Your task to perform on an android device: add a contact Image 0: 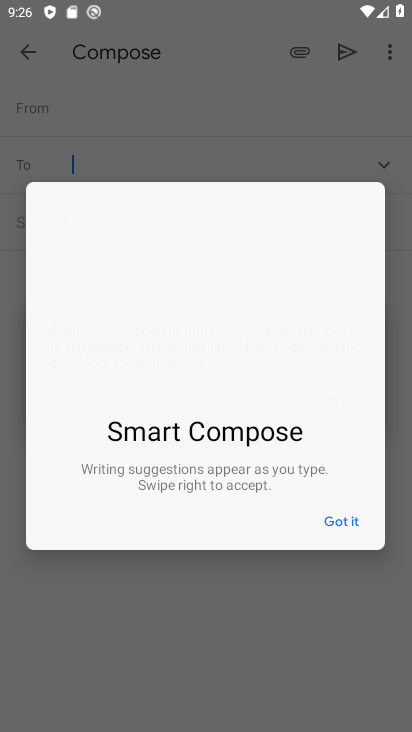
Step 0: press home button
Your task to perform on an android device: add a contact Image 1: 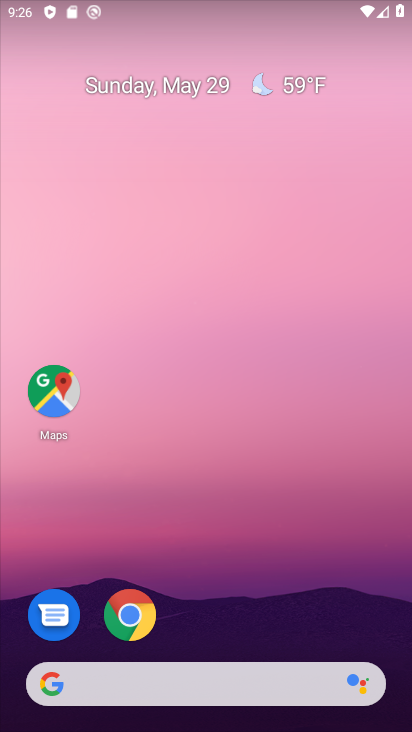
Step 1: drag from (237, 613) to (288, 77)
Your task to perform on an android device: add a contact Image 2: 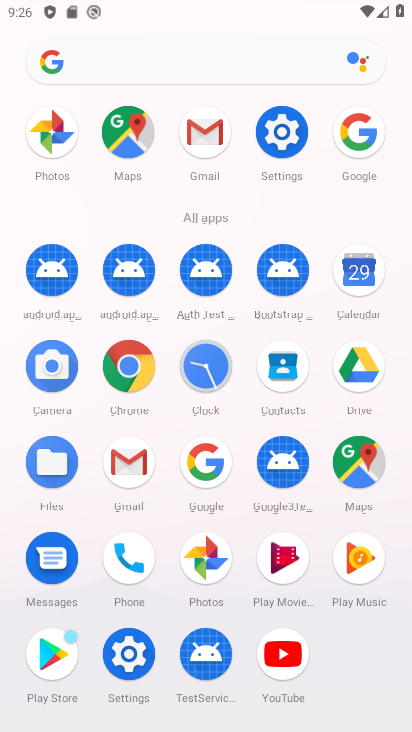
Step 2: click (289, 356)
Your task to perform on an android device: add a contact Image 3: 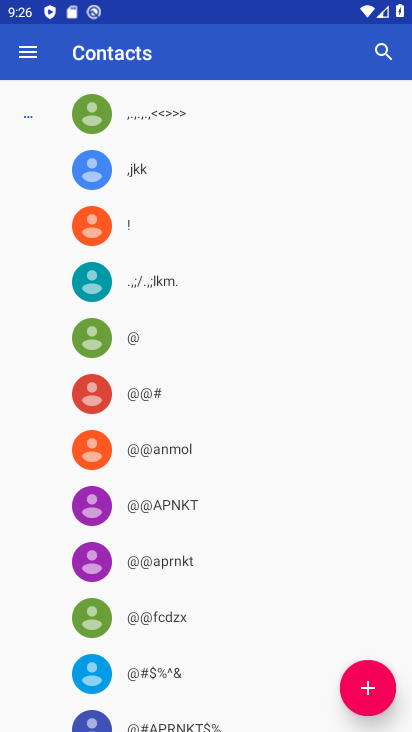
Step 3: click (365, 712)
Your task to perform on an android device: add a contact Image 4: 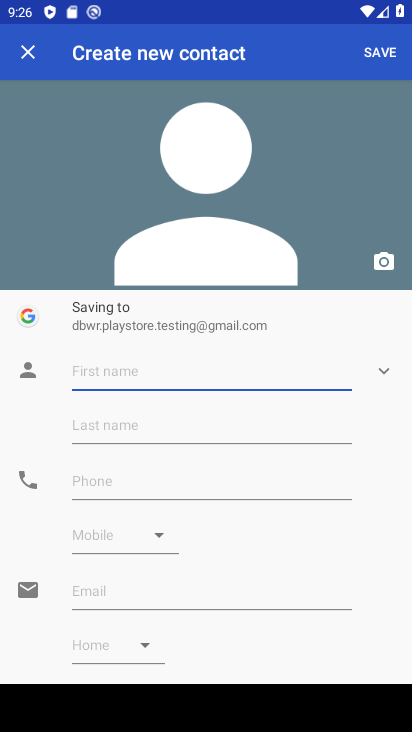
Step 4: click (161, 367)
Your task to perform on an android device: add a contact Image 5: 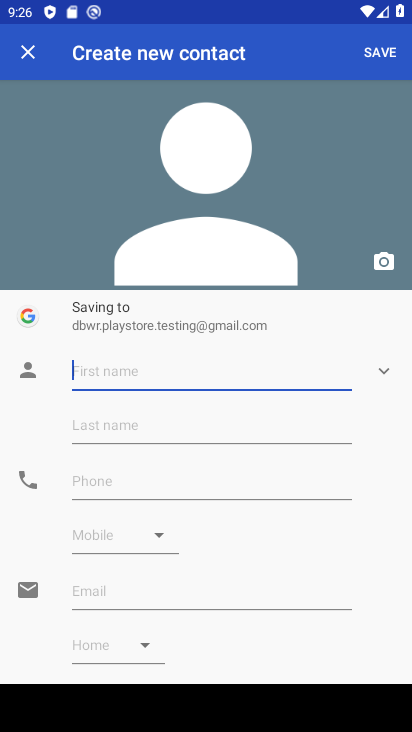
Step 5: type "dgdhdh"
Your task to perform on an android device: add a contact Image 6: 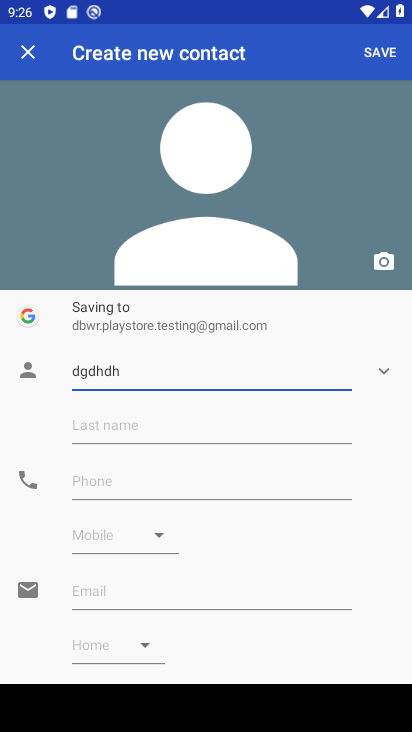
Step 6: click (377, 57)
Your task to perform on an android device: add a contact Image 7: 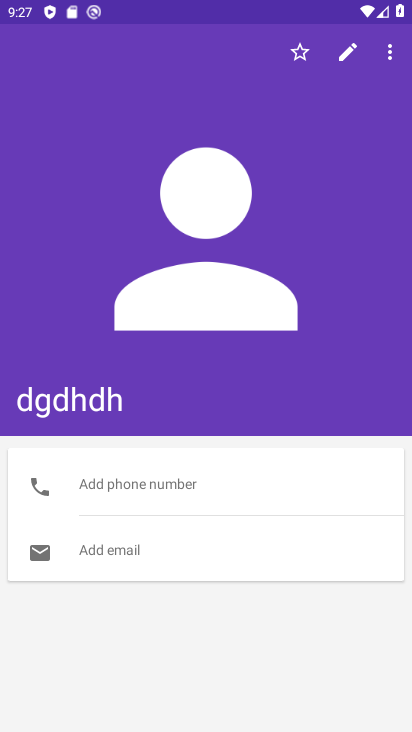
Step 7: task complete